Your task to perform on an android device: set the stopwatch Image 0: 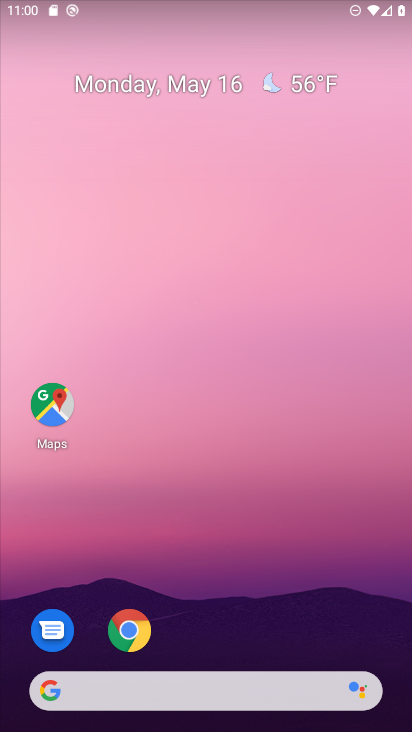
Step 0: drag from (287, 583) to (254, 80)
Your task to perform on an android device: set the stopwatch Image 1: 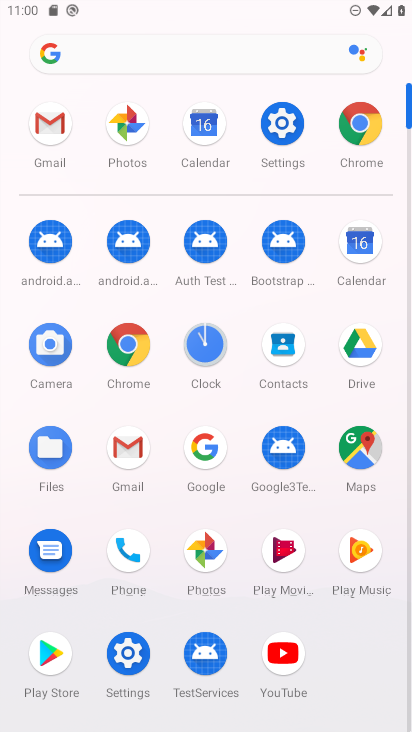
Step 1: click (214, 356)
Your task to perform on an android device: set the stopwatch Image 2: 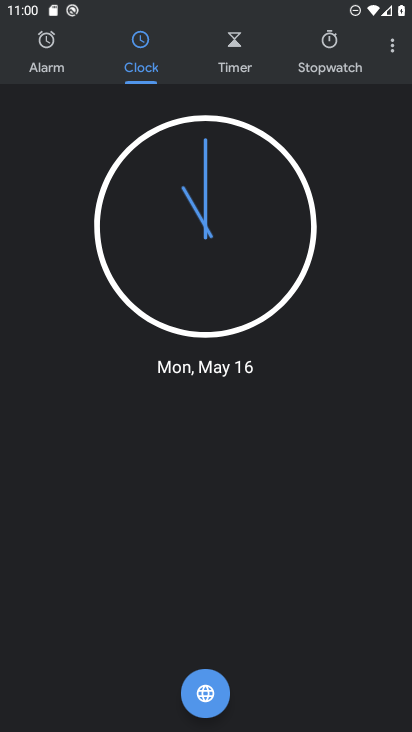
Step 2: click (329, 51)
Your task to perform on an android device: set the stopwatch Image 3: 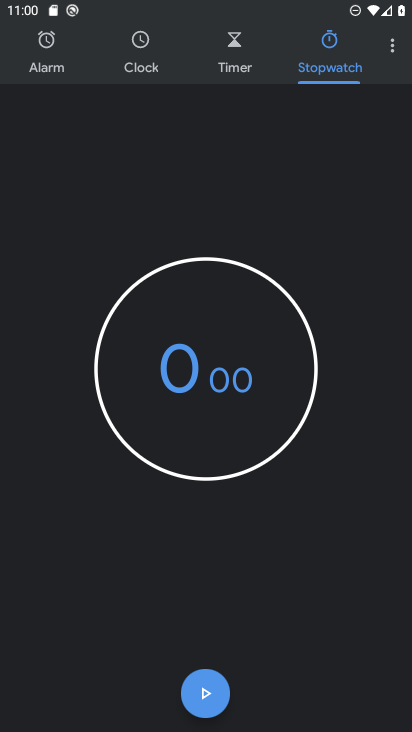
Step 3: task complete